Your task to perform on an android device: turn off picture-in-picture Image 0: 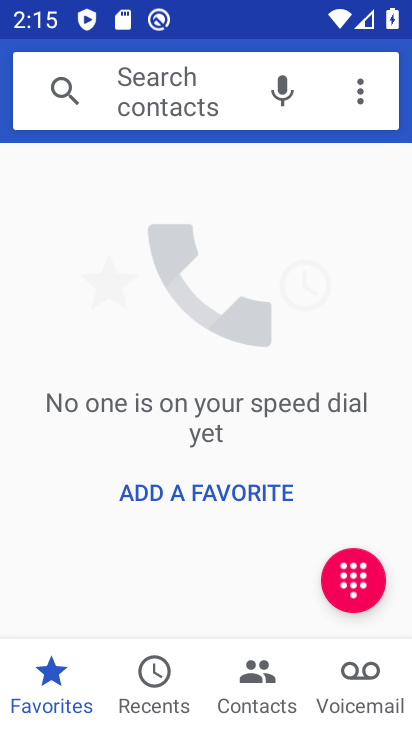
Step 0: press home button
Your task to perform on an android device: turn off picture-in-picture Image 1: 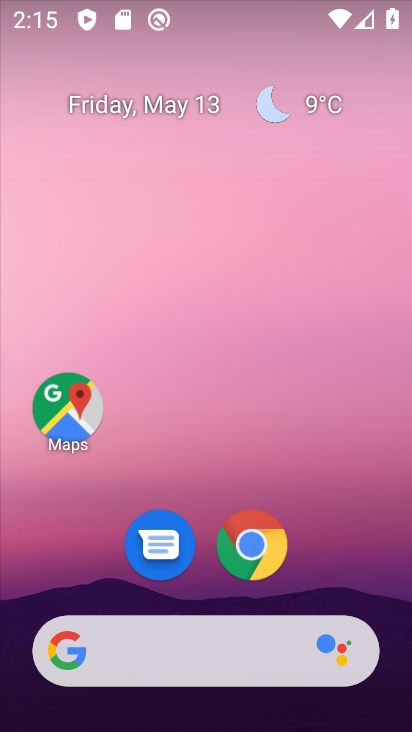
Step 1: click (256, 553)
Your task to perform on an android device: turn off picture-in-picture Image 2: 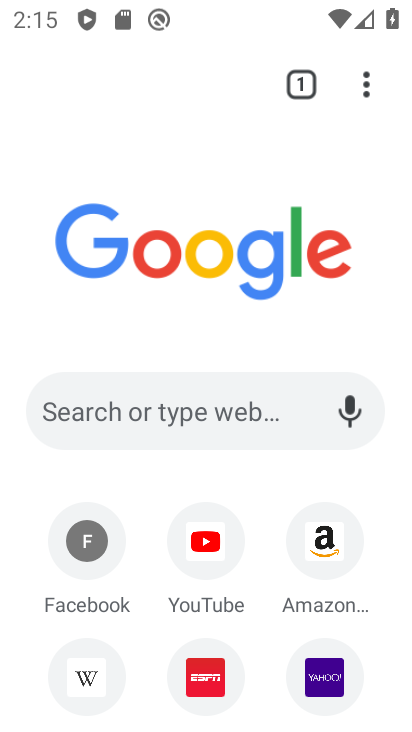
Step 2: press home button
Your task to perform on an android device: turn off picture-in-picture Image 3: 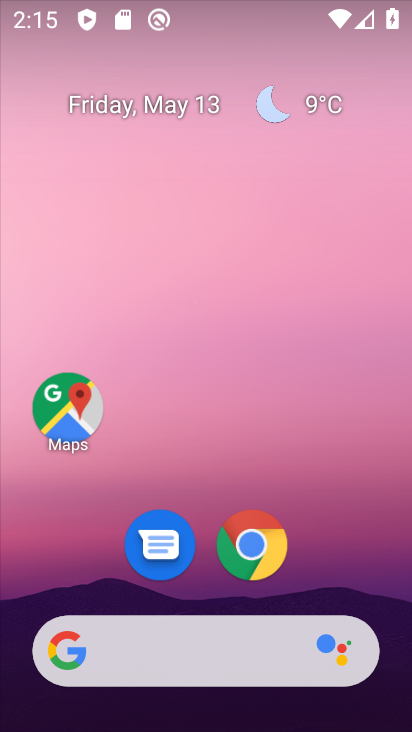
Step 3: click (264, 560)
Your task to perform on an android device: turn off picture-in-picture Image 4: 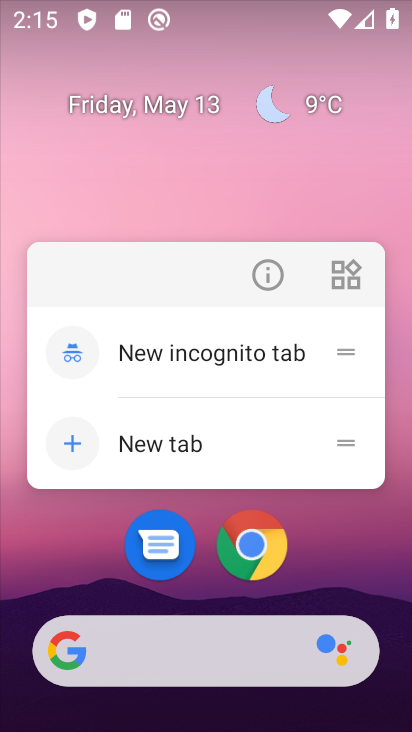
Step 4: click (269, 273)
Your task to perform on an android device: turn off picture-in-picture Image 5: 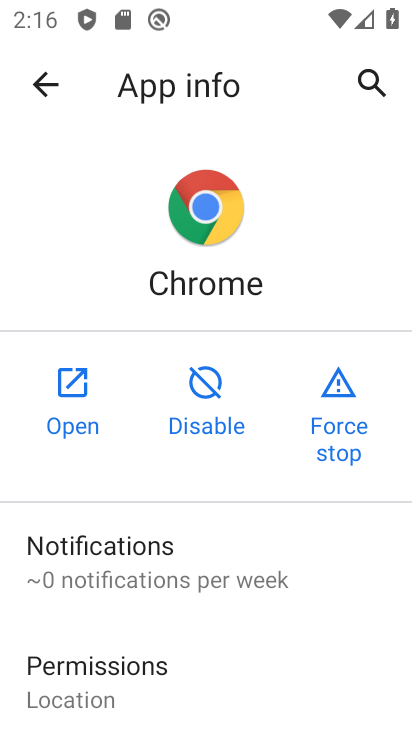
Step 5: drag from (269, 652) to (260, 172)
Your task to perform on an android device: turn off picture-in-picture Image 6: 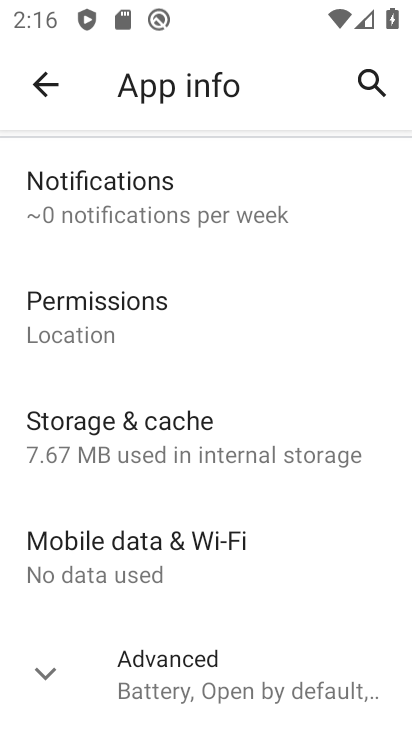
Step 6: click (143, 683)
Your task to perform on an android device: turn off picture-in-picture Image 7: 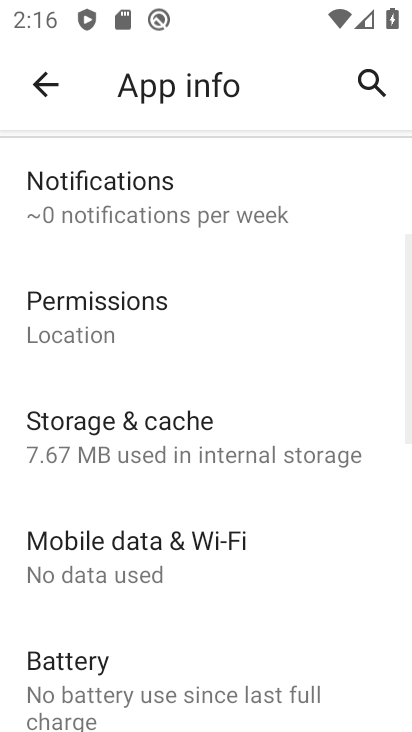
Step 7: drag from (315, 644) to (292, 239)
Your task to perform on an android device: turn off picture-in-picture Image 8: 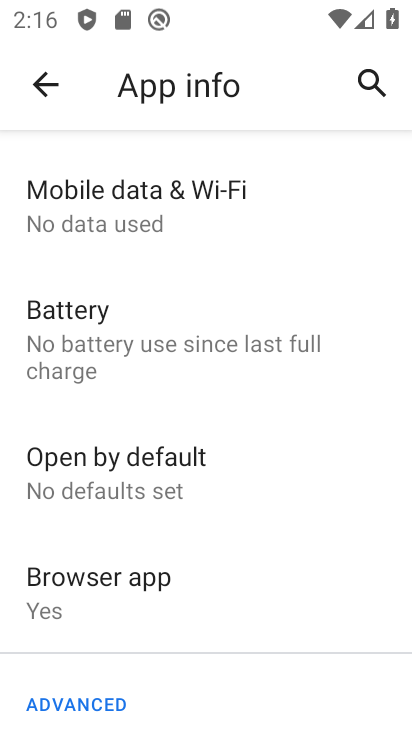
Step 8: drag from (317, 658) to (299, 241)
Your task to perform on an android device: turn off picture-in-picture Image 9: 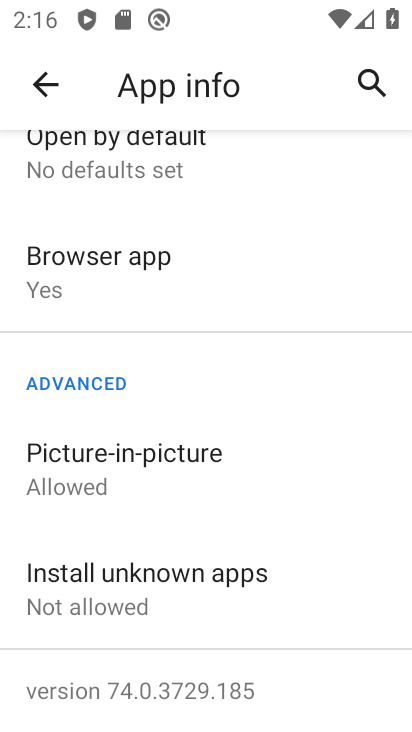
Step 9: click (120, 449)
Your task to perform on an android device: turn off picture-in-picture Image 10: 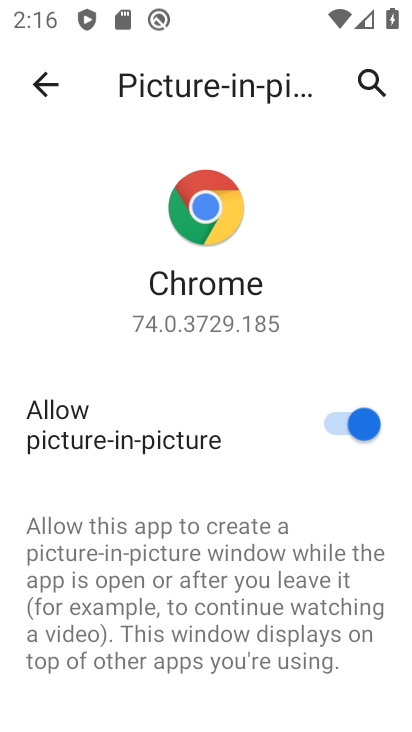
Step 10: click (339, 419)
Your task to perform on an android device: turn off picture-in-picture Image 11: 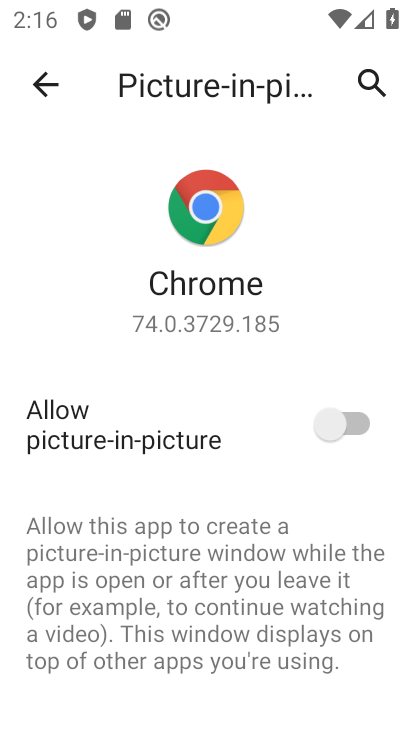
Step 11: task complete